Your task to perform on an android device: Open the phone app and click the voicemail tab. Image 0: 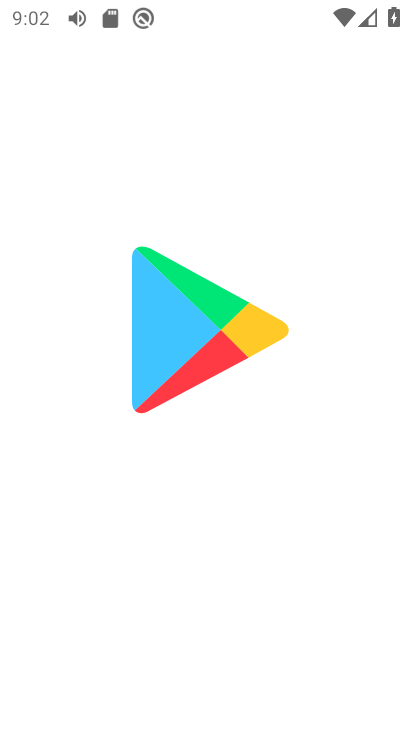
Step 0: click (249, 566)
Your task to perform on an android device: Open the phone app and click the voicemail tab. Image 1: 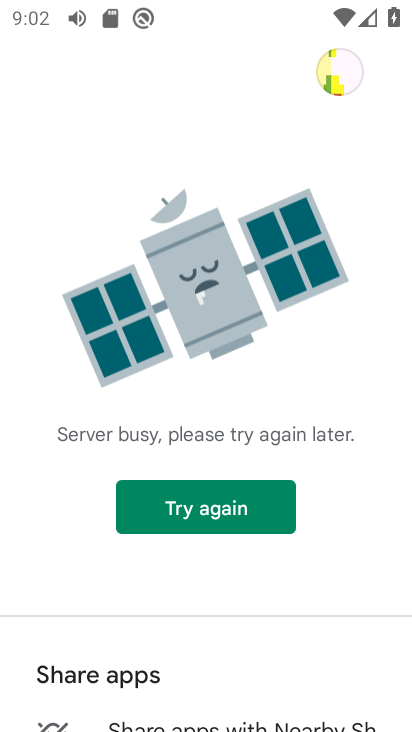
Step 1: press home button
Your task to perform on an android device: Open the phone app and click the voicemail tab. Image 2: 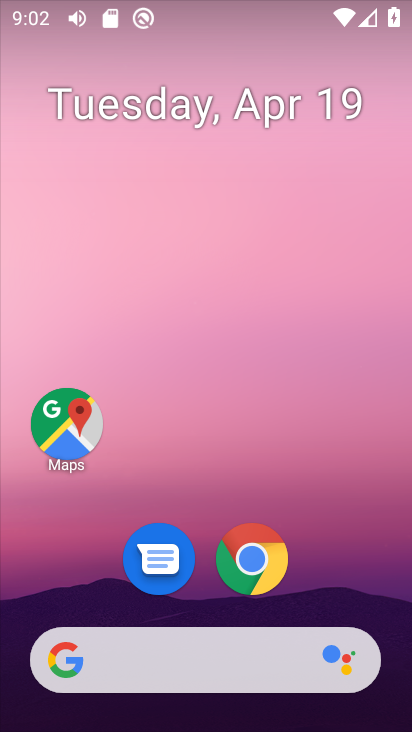
Step 2: click (349, 123)
Your task to perform on an android device: Open the phone app and click the voicemail tab. Image 3: 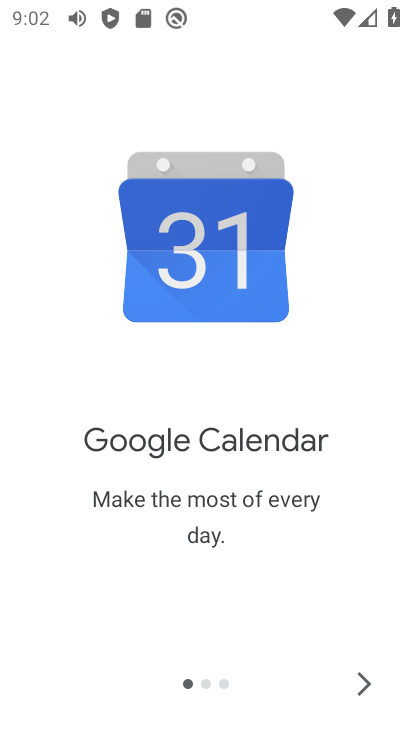
Step 3: click (365, 676)
Your task to perform on an android device: Open the phone app and click the voicemail tab. Image 4: 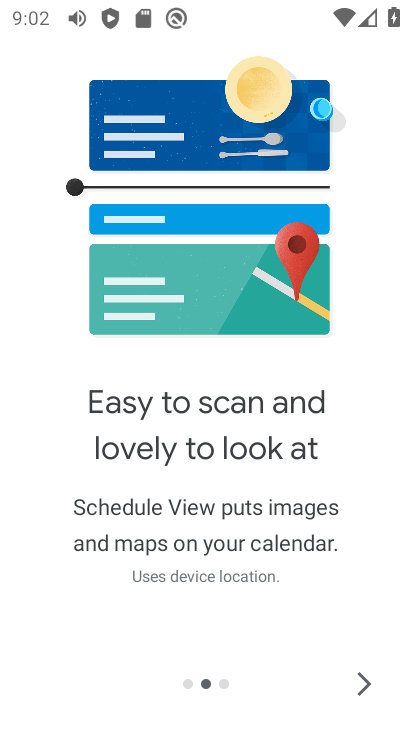
Step 4: click (365, 676)
Your task to perform on an android device: Open the phone app and click the voicemail tab. Image 5: 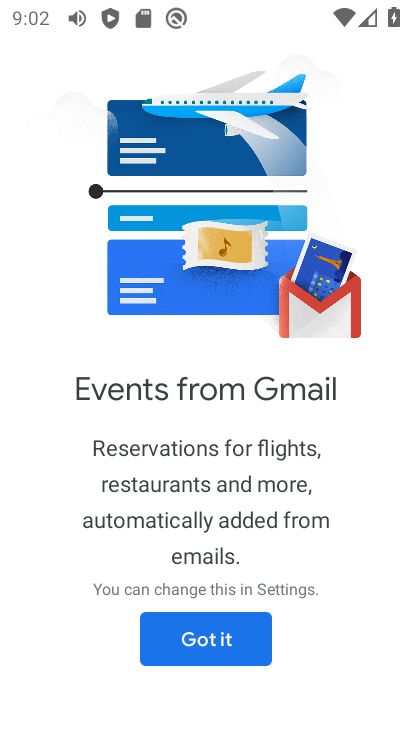
Step 5: click (196, 622)
Your task to perform on an android device: Open the phone app and click the voicemail tab. Image 6: 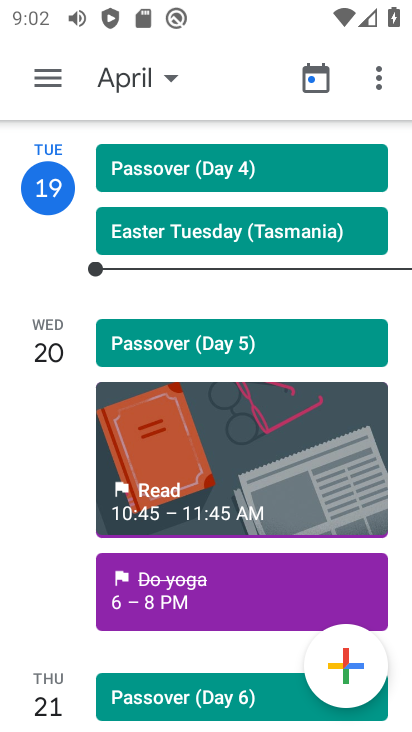
Step 6: press home button
Your task to perform on an android device: Open the phone app and click the voicemail tab. Image 7: 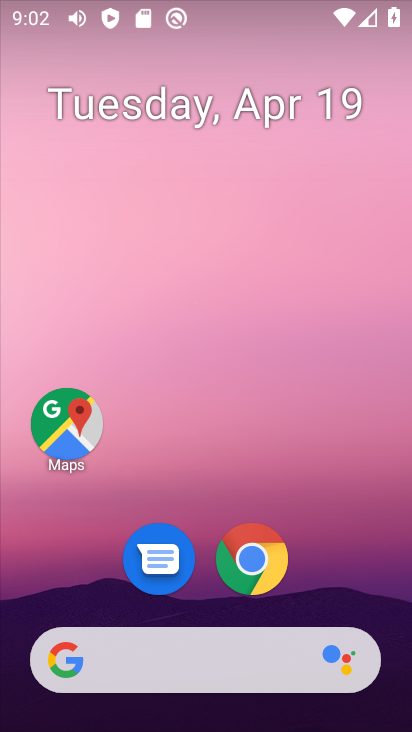
Step 7: click (345, 139)
Your task to perform on an android device: Open the phone app and click the voicemail tab. Image 8: 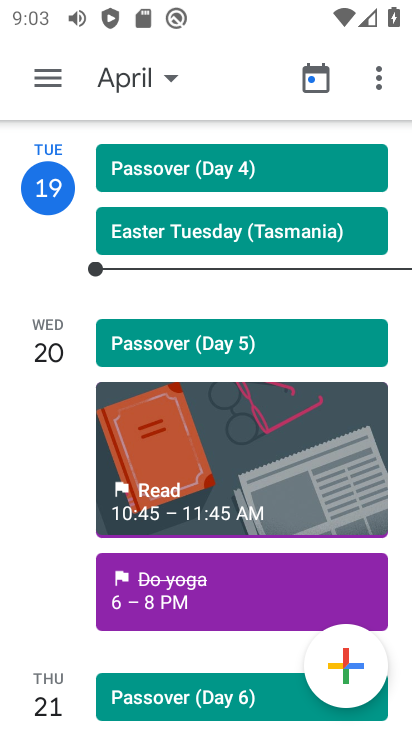
Step 8: press home button
Your task to perform on an android device: Open the phone app and click the voicemail tab. Image 9: 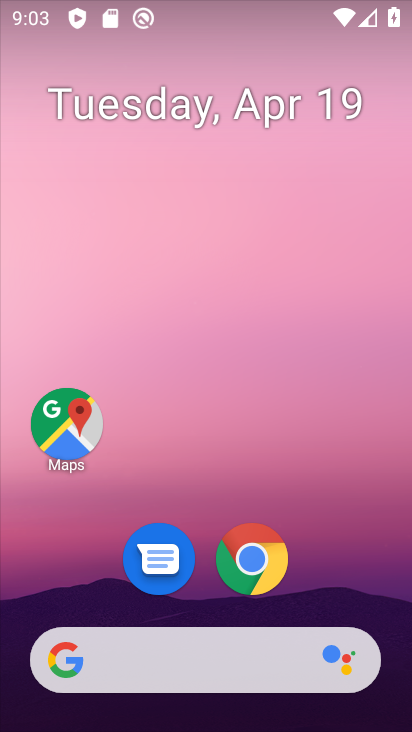
Step 9: drag from (319, 163) to (308, 42)
Your task to perform on an android device: Open the phone app and click the voicemail tab. Image 10: 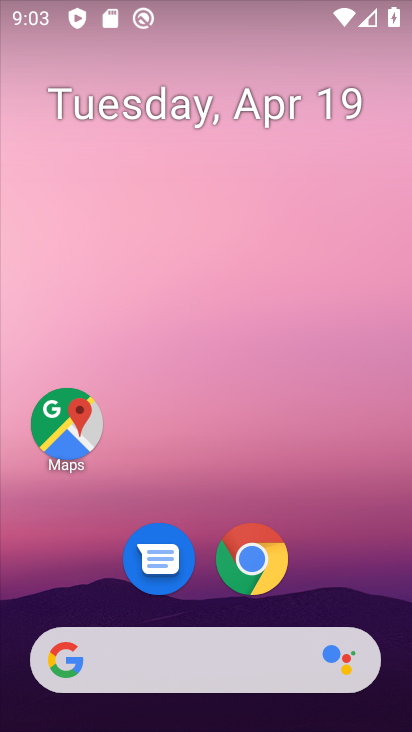
Step 10: drag from (372, 578) to (316, 87)
Your task to perform on an android device: Open the phone app and click the voicemail tab. Image 11: 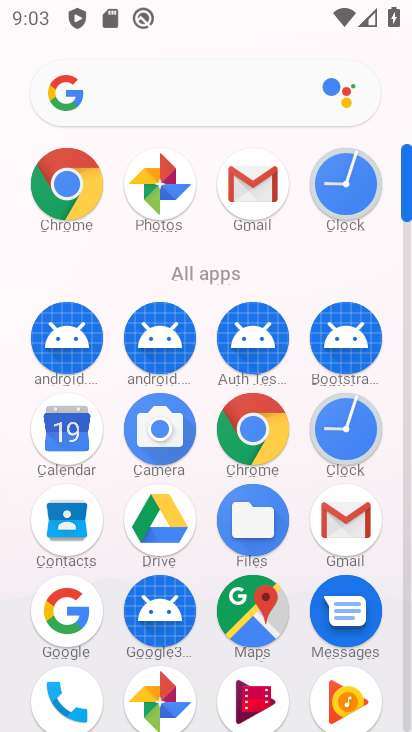
Step 11: drag from (406, 193) to (404, 89)
Your task to perform on an android device: Open the phone app and click the voicemail tab. Image 12: 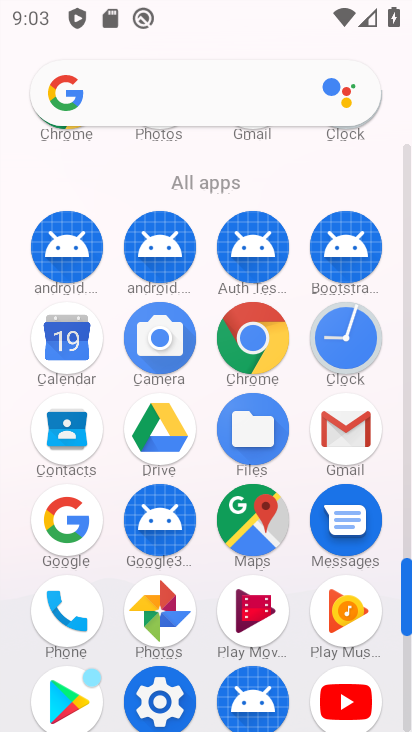
Step 12: click (60, 607)
Your task to perform on an android device: Open the phone app and click the voicemail tab. Image 13: 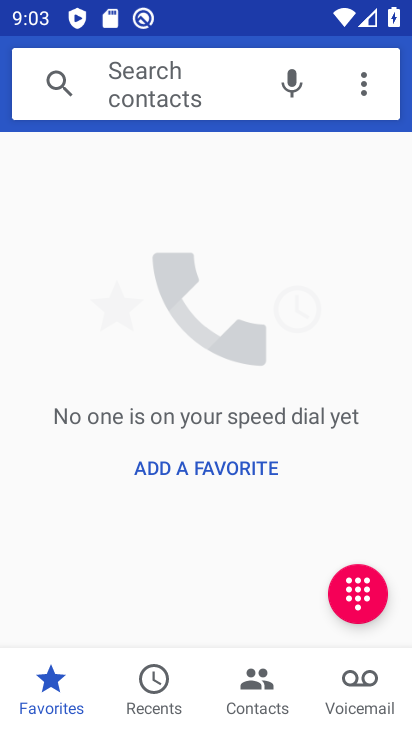
Step 13: click (344, 676)
Your task to perform on an android device: Open the phone app and click the voicemail tab. Image 14: 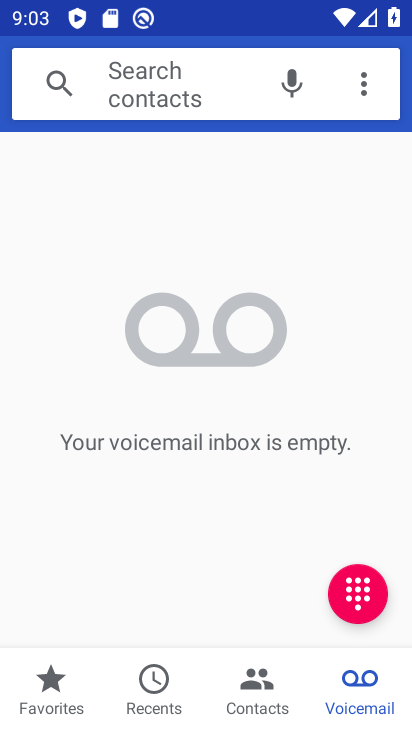
Step 14: task complete